Your task to perform on an android device: Open Google Maps and go to "Timeline" Image 0: 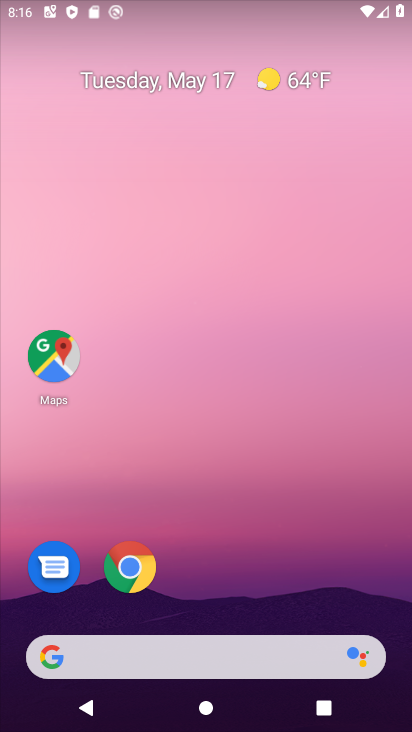
Step 0: drag from (384, 619) to (200, 120)
Your task to perform on an android device: Open Google Maps and go to "Timeline" Image 1: 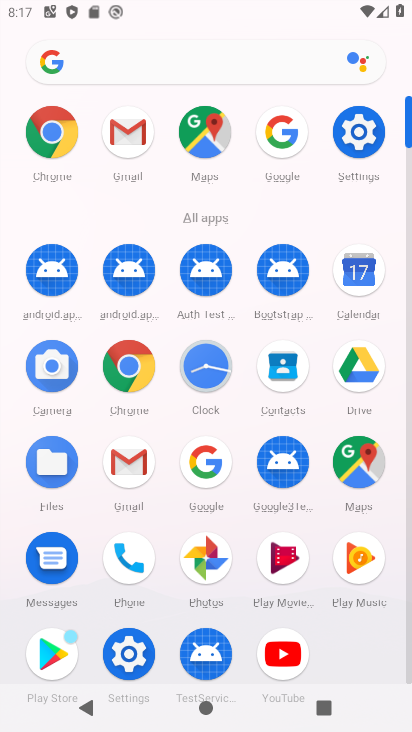
Step 1: click (372, 453)
Your task to perform on an android device: Open Google Maps and go to "Timeline" Image 2: 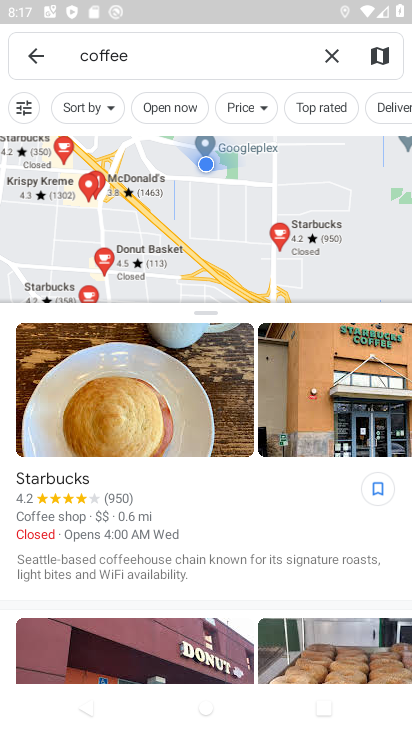
Step 2: click (330, 51)
Your task to perform on an android device: Open Google Maps and go to "Timeline" Image 3: 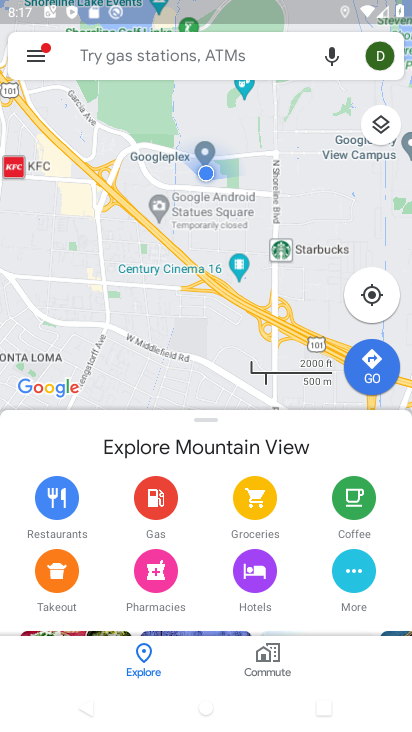
Step 3: click (22, 55)
Your task to perform on an android device: Open Google Maps and go to "Timeline" Image 4: 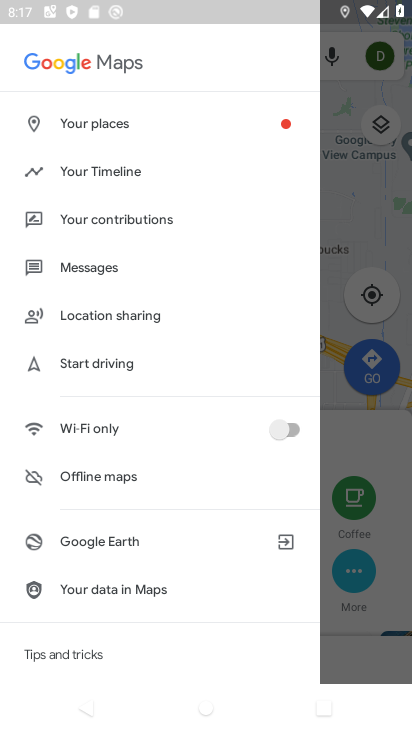
Step 4: click (154, 175)
Your task to perform on an android device: Open Google Maps and go to "Timeline" Image 5: 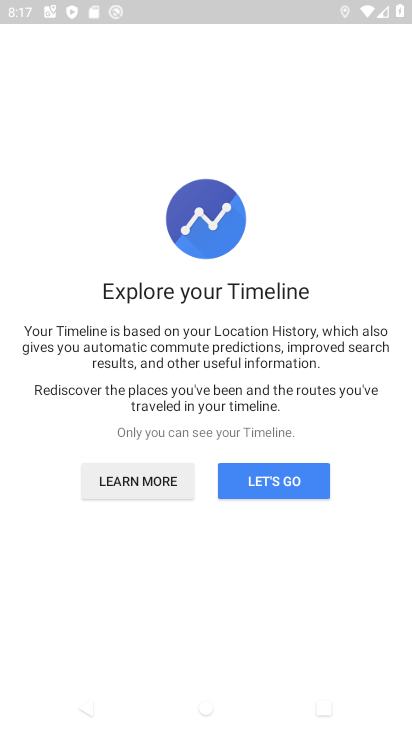
Step 5: task complete